Your task to perform on an android device: Open maps Image 0: 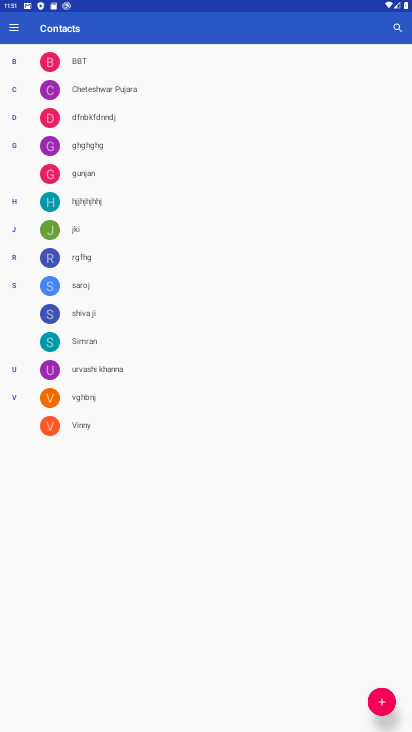
Step 0: press home button
Your task to perform on an android device: Open maps Image 1: 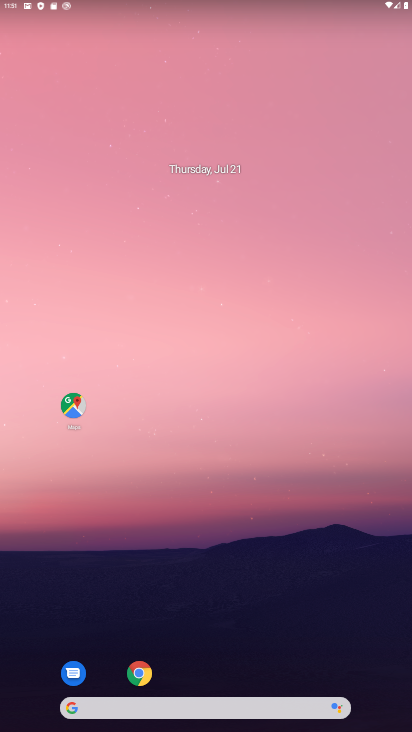
Step 1: click (70, 404)
Your task to perform on an android device: Open maps Image 2: 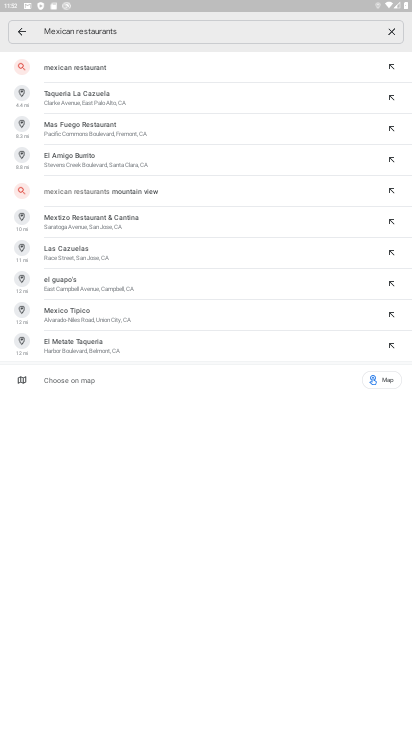
Step 2: task complete